Your task to perform on an android device: Go to notification settings Image 0: 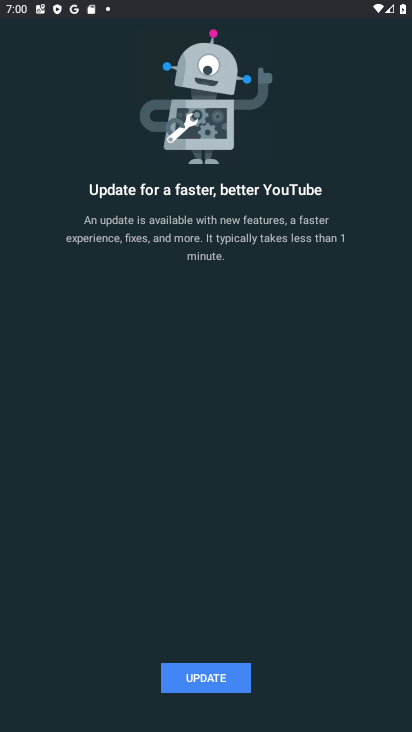
Step 0: press home button
Your task to perform on an android device: Go to notification settings Image 1: 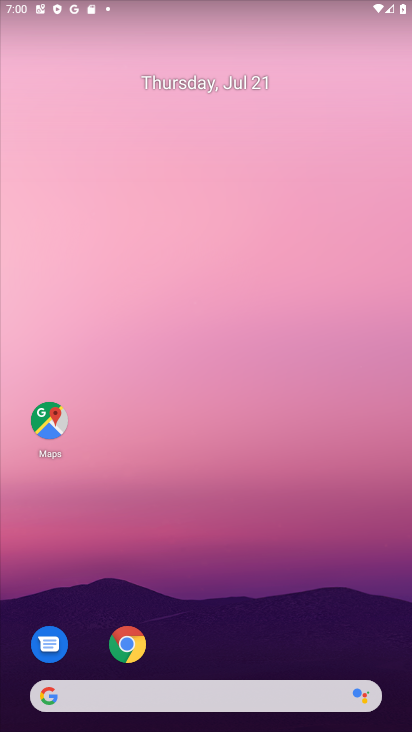
Step 1: drag from (282, 517) to (325, 223)
Your task to perform on an android device: Go to notification settings Image 2: 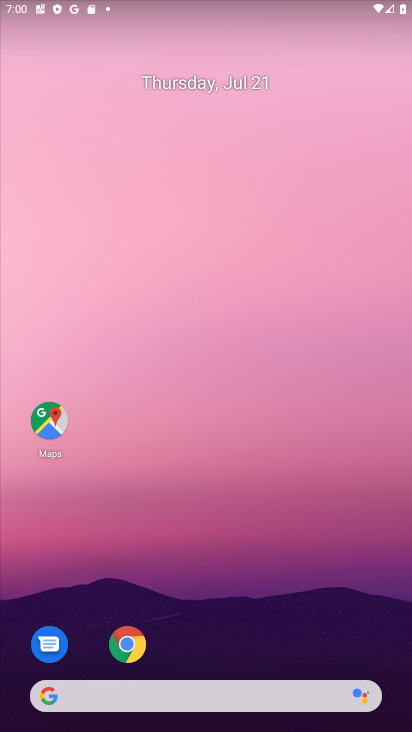
Step 2: drag from (241, 560) to (224, 201)
Your task to perform on an android device: Go to notification settings Image 3: 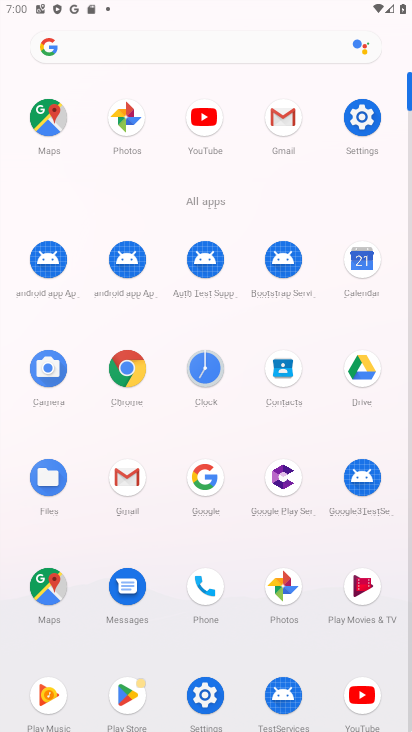
Step 3: click (207, 694)
Your task to perform on an android device: Go to notification settings Image 4: 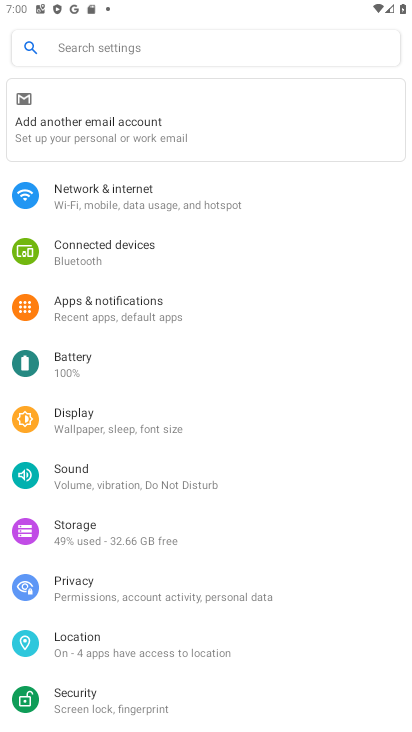
Step 4: click (91, 308)
Your task to perform on an android device: Go to notification settings Image 5: 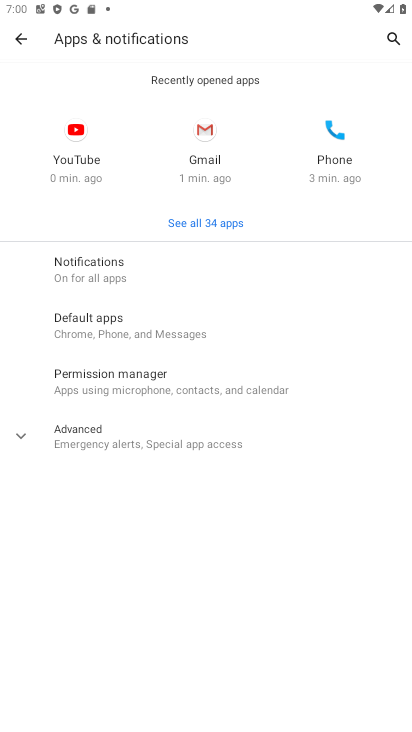
Step 5: task complete